Your task to perform on an android device: change the clock display to analog Image 0: 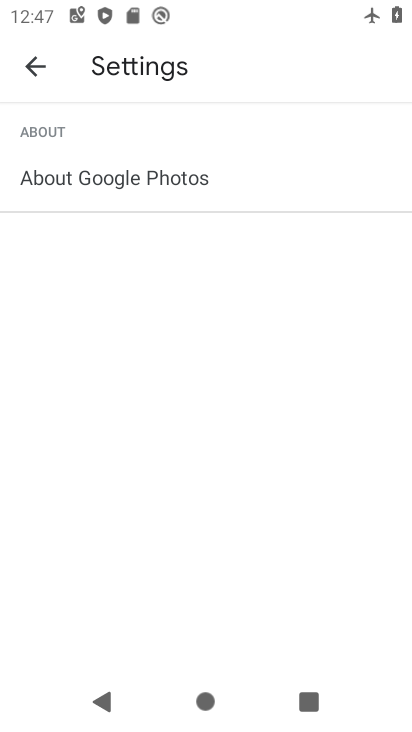
Step 0: press home button
Your task to perform on an android device: change the clock display to analog Image 1: 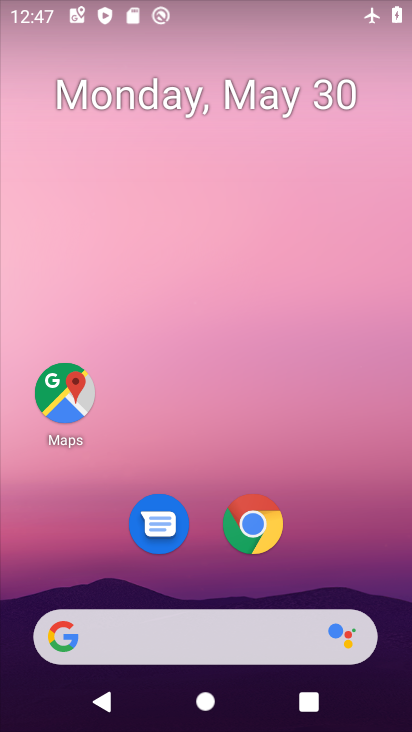
Step 1: drag from (318, 521) to (336, 6)
Your task to perform on an android device: change the clock display to analog Image 2: 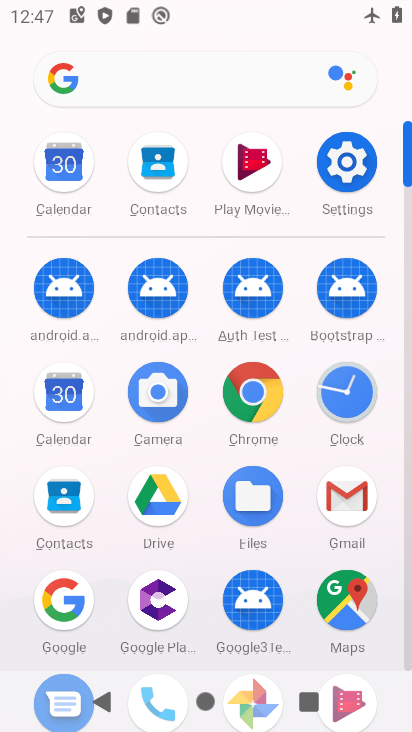
Step 2: click (342, 387)
Your task to perform on an android device: change the clock display to analog Image 3: 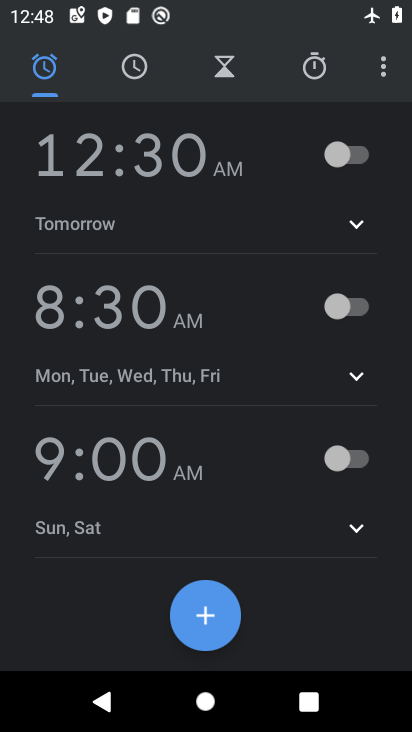
Step 3: click (388, 72)
Your task to perform on an android device: change the clock display to analog Image 4: 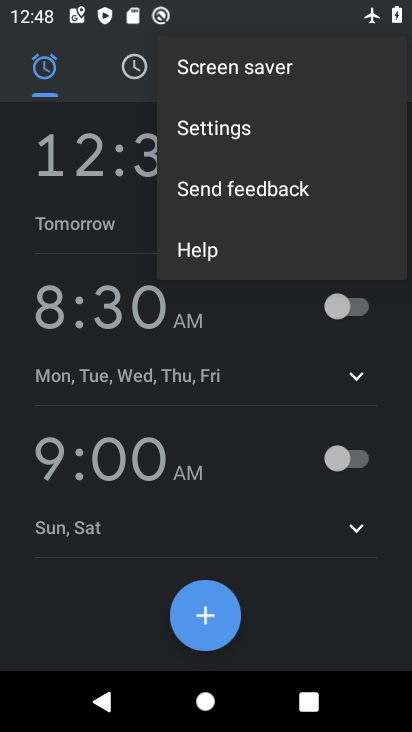
Step 4: click (319, 125)
Your task to perform on an android device: change the clock display to analog Image 5: 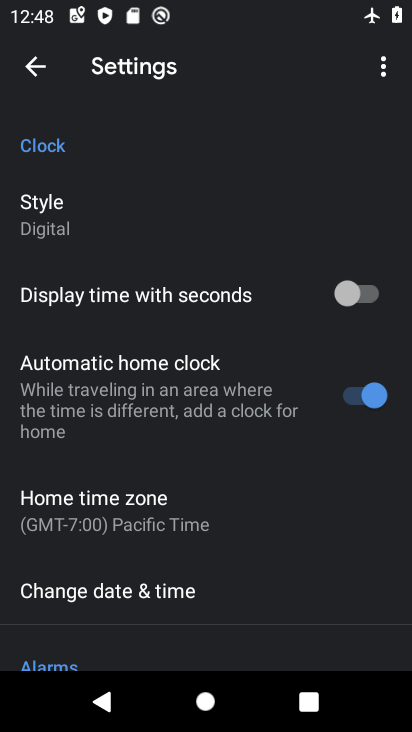
Step 5: click (94, 221)
Your task to perform on an android device: change the clock display to analog Image 6: 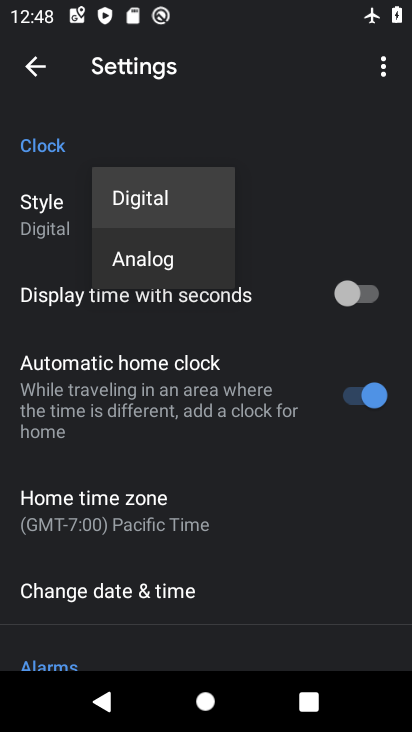
Step 6: click (119, 250)
Your task to perform on an android device: change the clock display to analog Image 7: 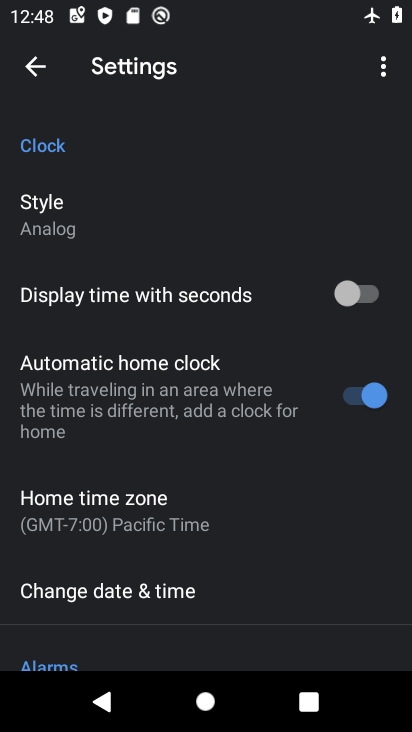
Step 7: task complete